Your task to perform on an android device: Open the calendar app, open the side menu, and click the "Day" option Image 0: 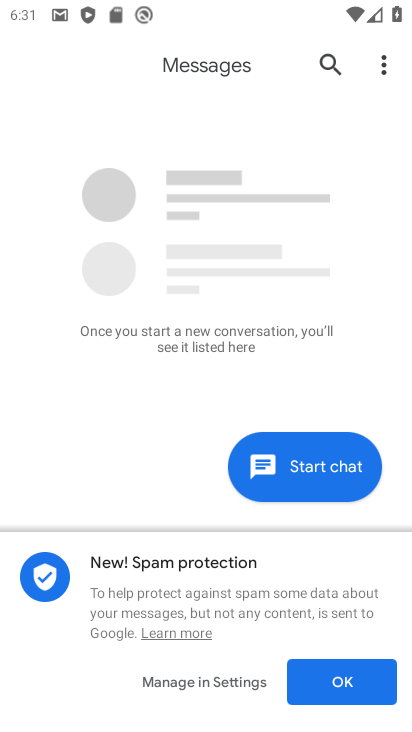
Step 0: press home button
Your task to perform on an android device: Open the calendar app, open the side menu, and click the "Day" option Image 1: 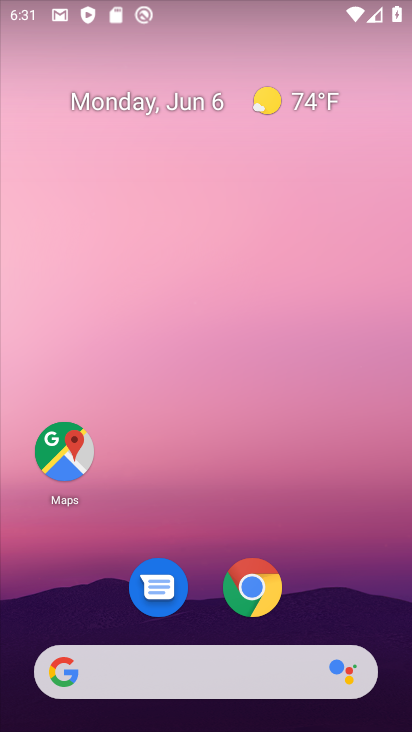
Step 1: drag from (399, 658) to (312, 42)
Your task to perform on an android device: Open the calendar app, open the side menu, and click the "Day" option Image 2: 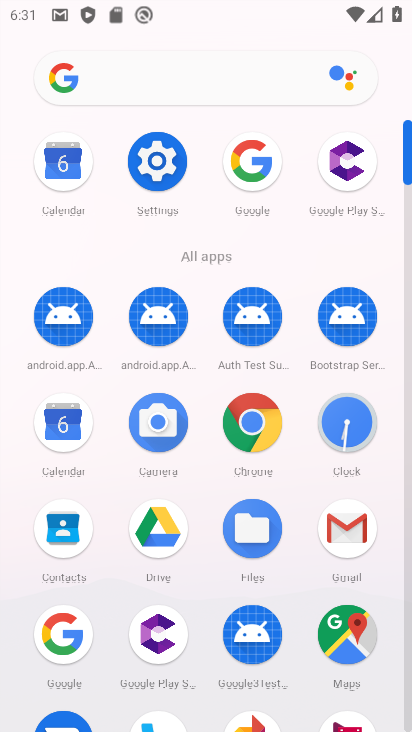
Step 2: click (58, 421)
Your task to perform on an android device: Open the calendar app, open the side menu, and click the "Day" option Image 3: 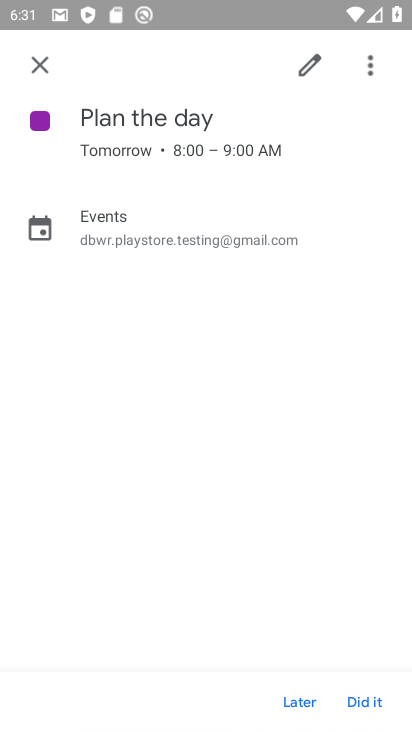
Step 3: click (40, 71)
Your task to perform on an android device: Open the calendar app, open the side menu, and click the "Day" option Image 4: 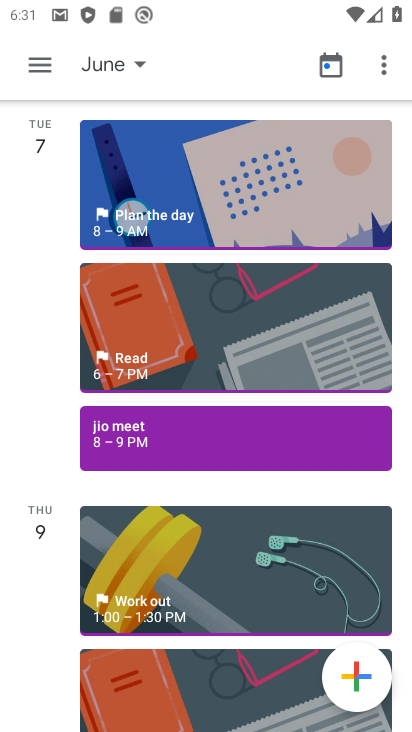
Step 4: click (40, 71)
Your task to perform on an android device: Open the calendar app, open the side menu, and click the "Day" option Image 5: 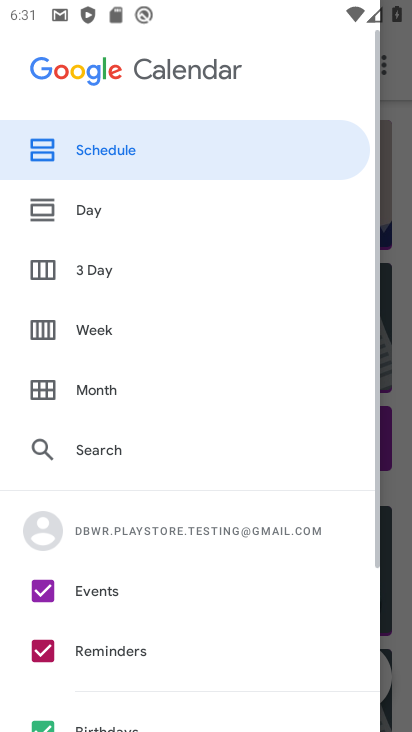
Step 5: click (122, 209)
Your task to perform on an android device: Open the calendar app, open the side menu, and click the "Day" option Image 6: 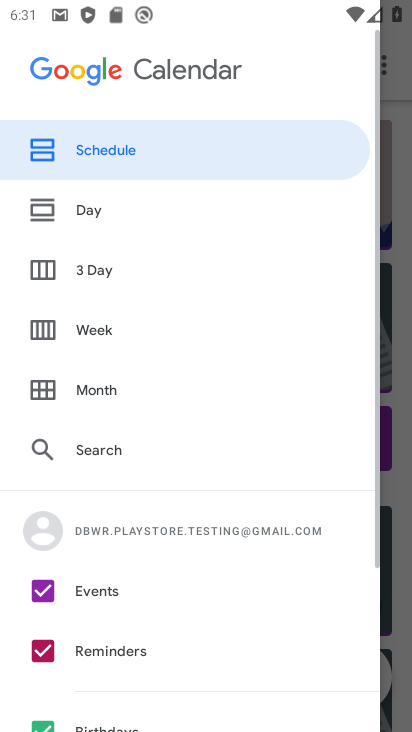
Step 6: click (90, 212)
Your task to perform on an android device: Open the calendar app, open the side menu, and click the "Day" option Image 7: 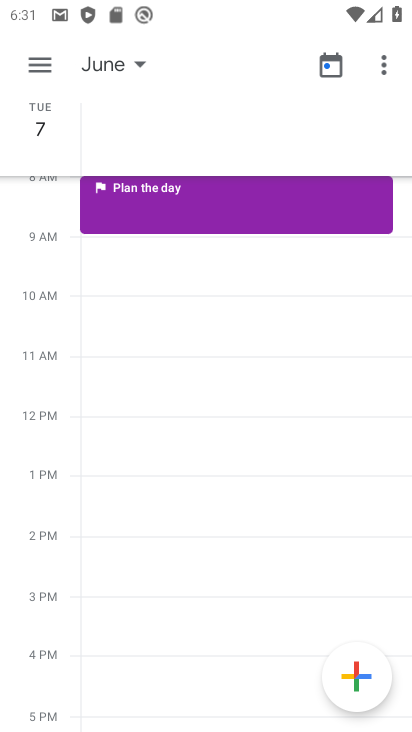
Step 7: task complete